Your task to perform on an android device: Play the last video I watched on Youtube Image 0: 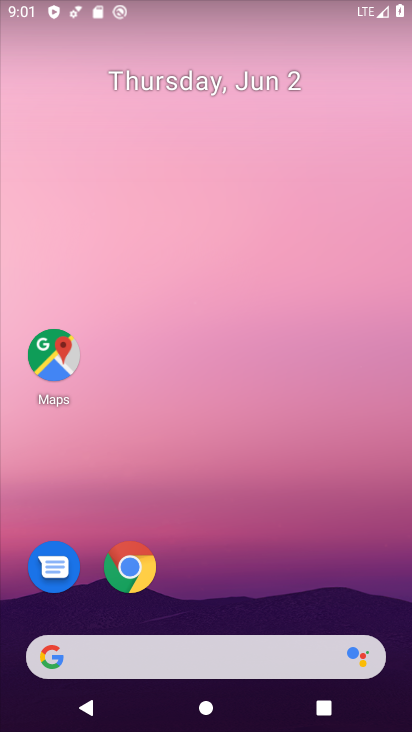
Step 0: drag from (282, 567) to (288, 129)
Your task to perform on an android device: Play the last video I watched on Youtube Image 1: 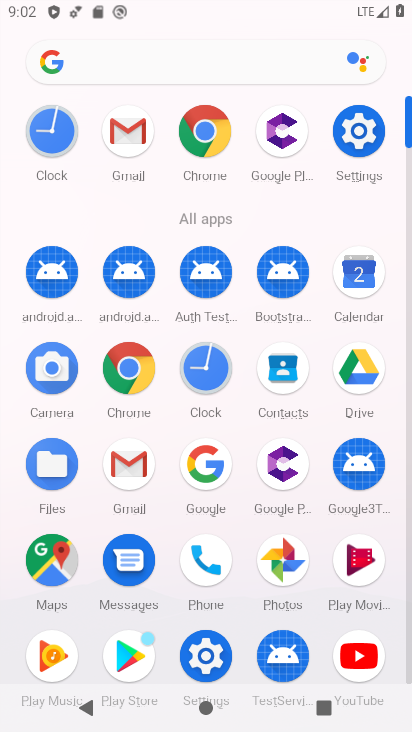
Step 1: click (352, 646)
Your task to perform on an android device: Play the last video I watched on Youtube Image 2: 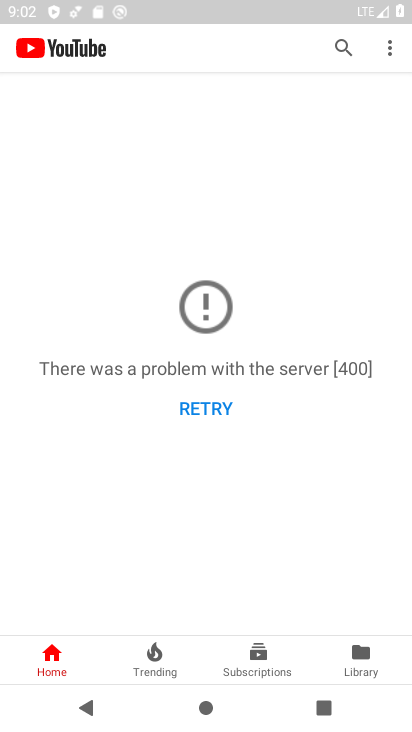
Step 2: click (356, 655)
Your task to perform on an android device: Play the last video I watched on Youtube Image 3: 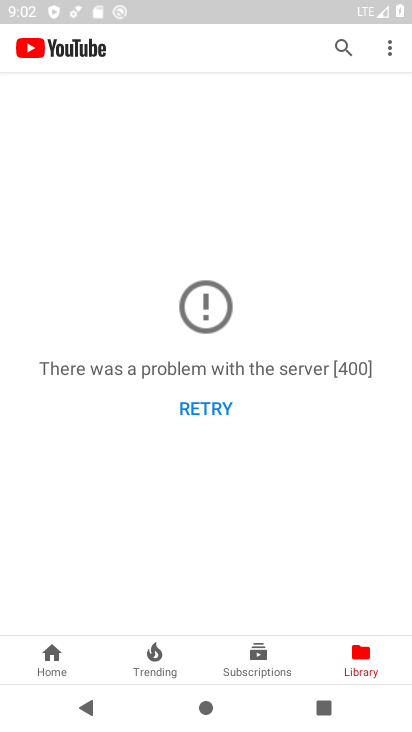
Step 3: task complete